Your task to perform on an android device: open a new tab in the chrome app Image 0: 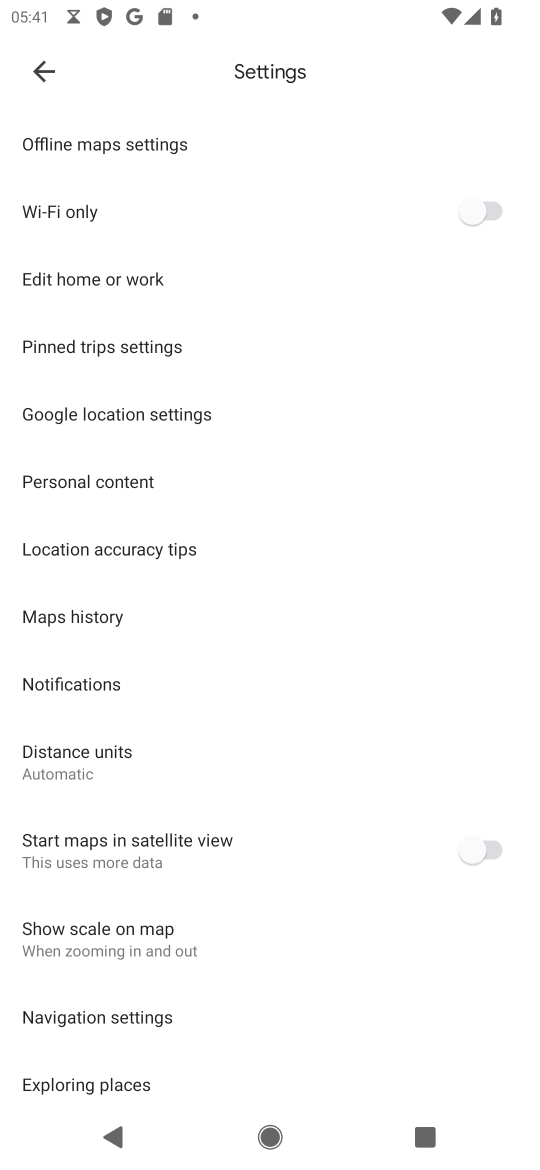
Step 0: press home button
Your task to perform on an android device: open a new tab in the chrome app Image 1: 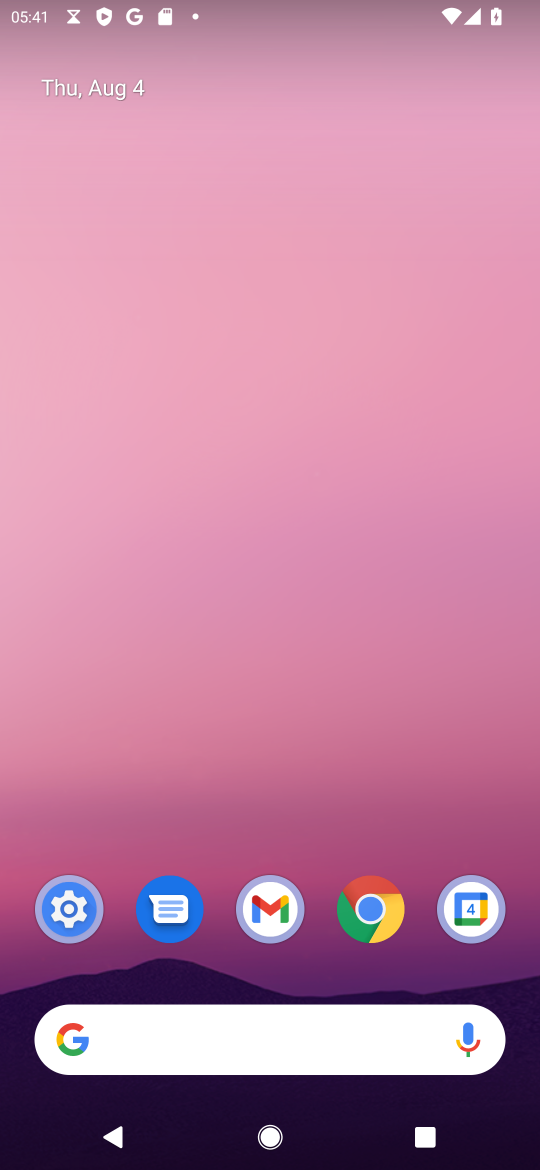
Step 1: click (371, 916)
Your task to perform on an android device: open a new tab in the chrome app Image 2: 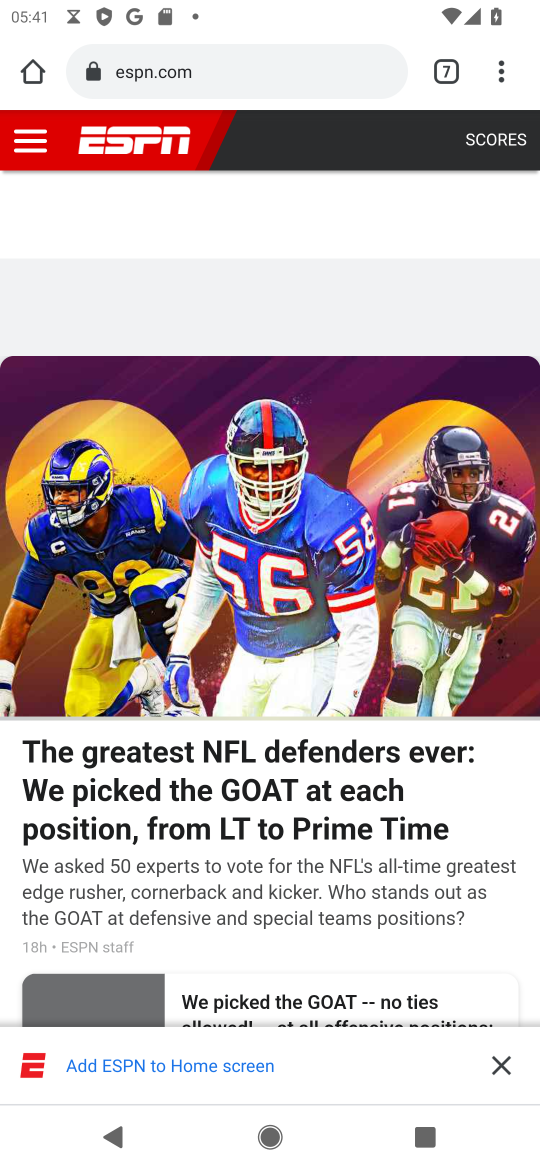
Step 2: task complete